Your task to perform on an android device: Do I have any events this weekend? Image 0: 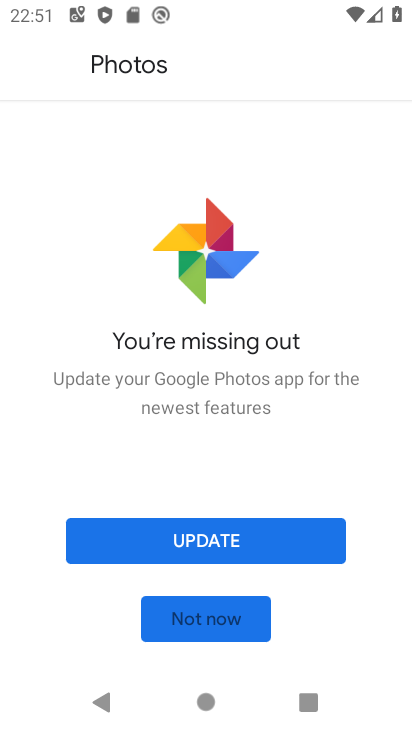
Step 0: press home button
Your task to perform on an android device: Do I have any events this weekend? Image 1: 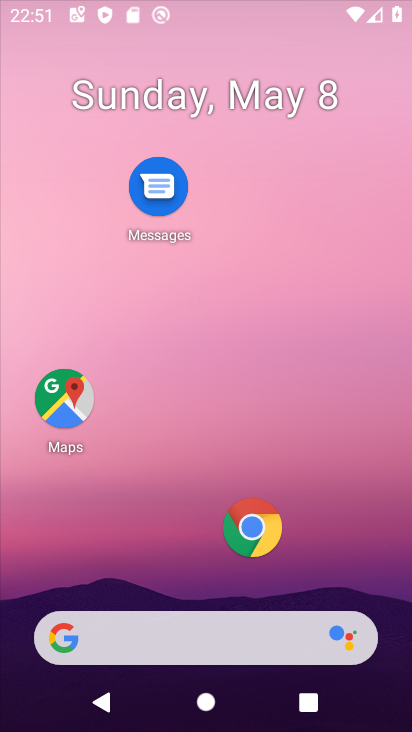
Step 1: drag from (201, 424) to (224, 89)
Your task to perform on an android device: Do I have any events this weekend? Image 2: 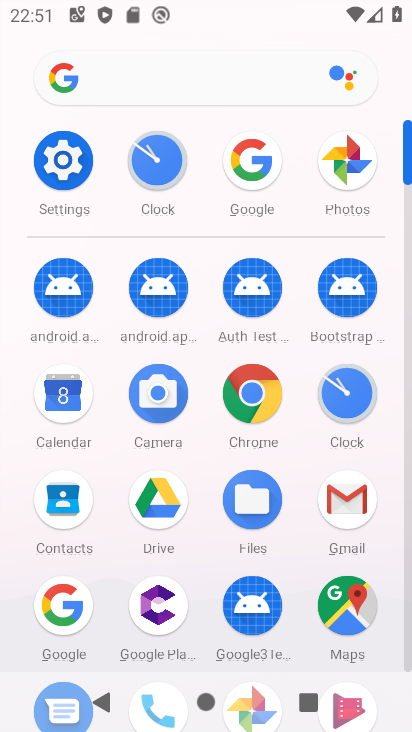
Step 2: click (63, 396)
Your task to perform on an android device: Do I have any events this weekend? Image 3: 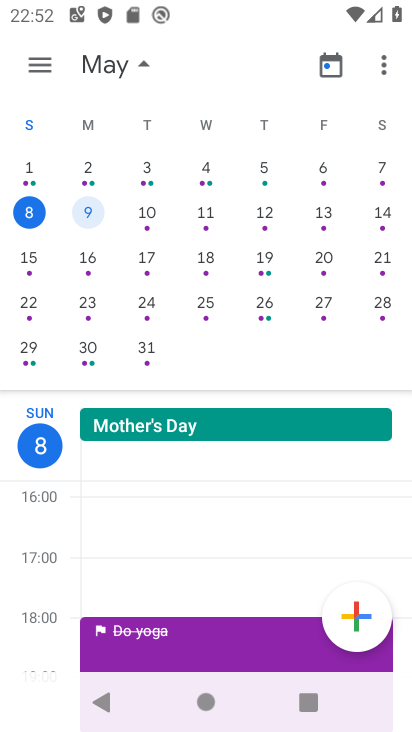
Step 3: click (202, 215)
Your task to perform on an android device: Do I have any events this weekend? Image 4: 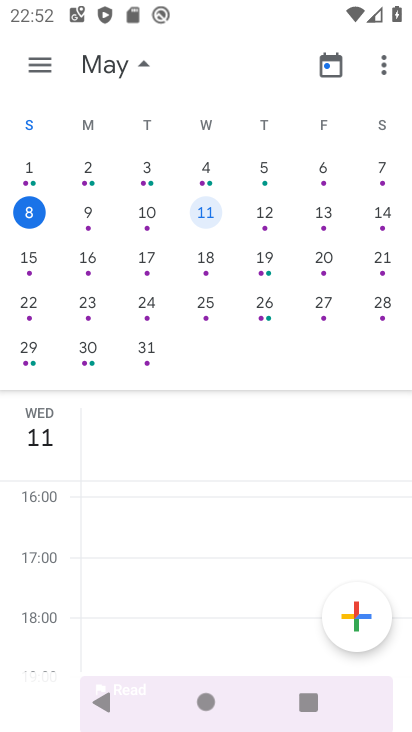
Step 4: click (267, 218)
Your task to perform on an android device: Do I have any events this weekend? Image 5: 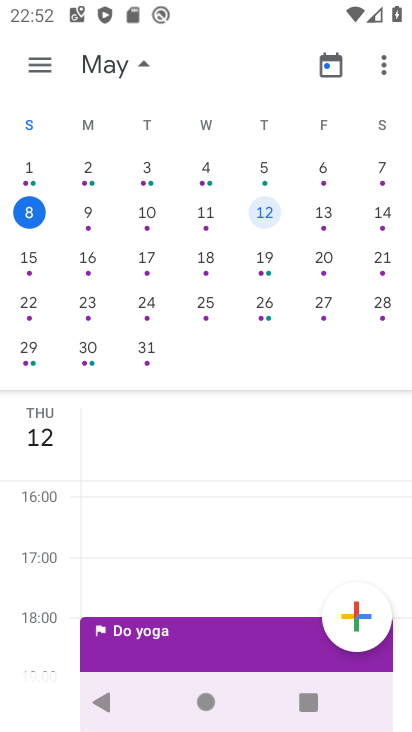
Step 5: click (315, 215)
Your task to perform on an android device: Do I have any events this weekend? Image 6: 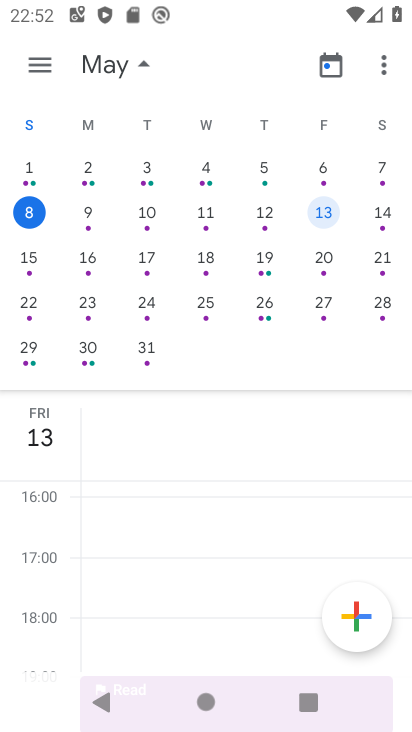
Step 6: click (254, 215)
Your task to perform on an android device: Do I have any events this weekend? Image 7: 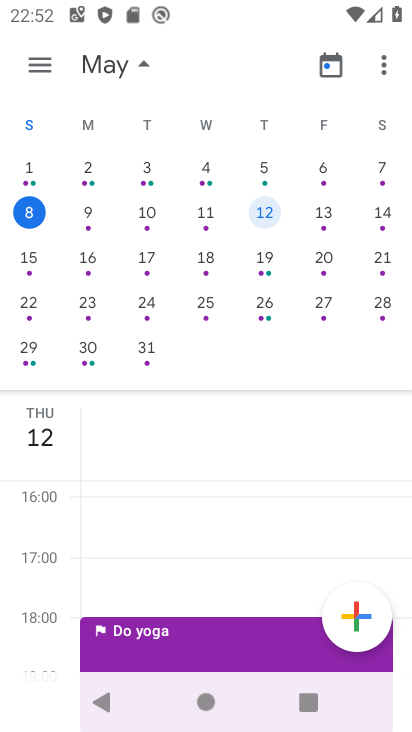
Step 7: task complete